Your task to perform on an android device: Open CNN.com Image 0: 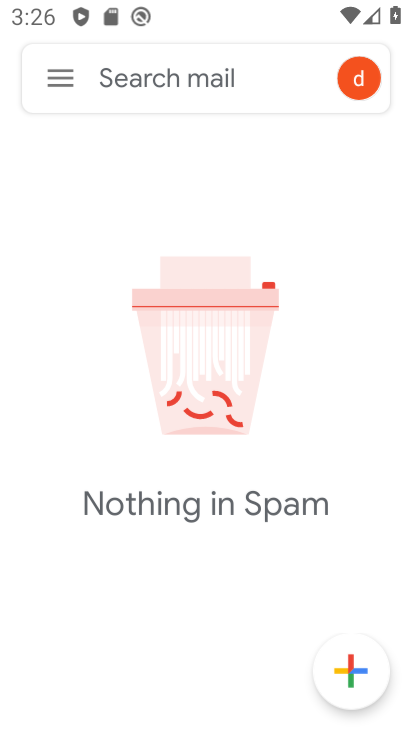
Step 0: drag from (202, 610) to (191, 280)
Your task to perform on an android device: Open CNN.com Image 1: 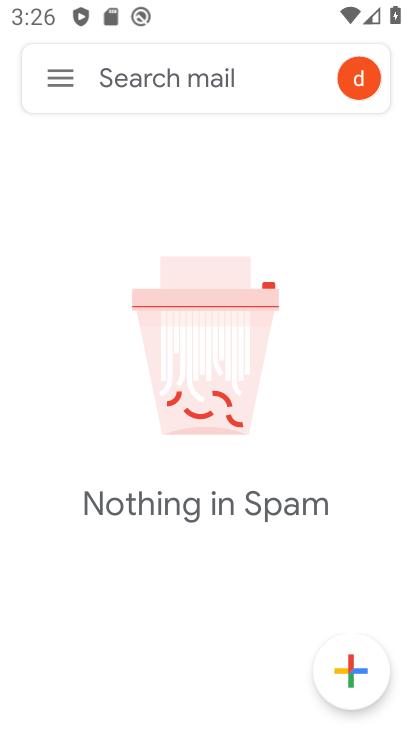
Step 1: press home button
Your task to perform on an android device: Open CNN.com Image 2: 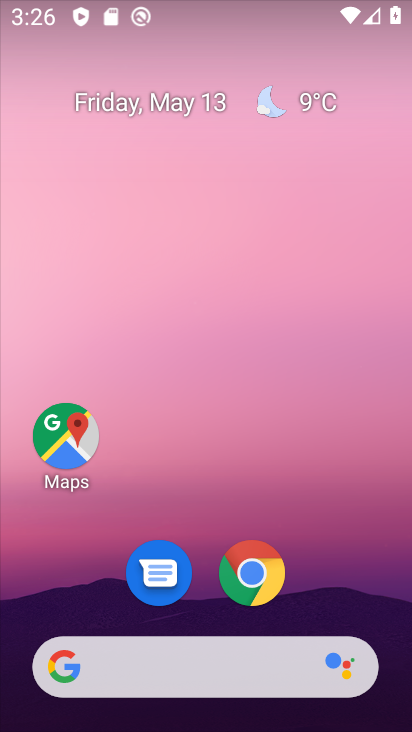
Step 2: drag from (201, 617) to (213, 277)
Your task to perform on an android device: Open CNN.com Image 3: 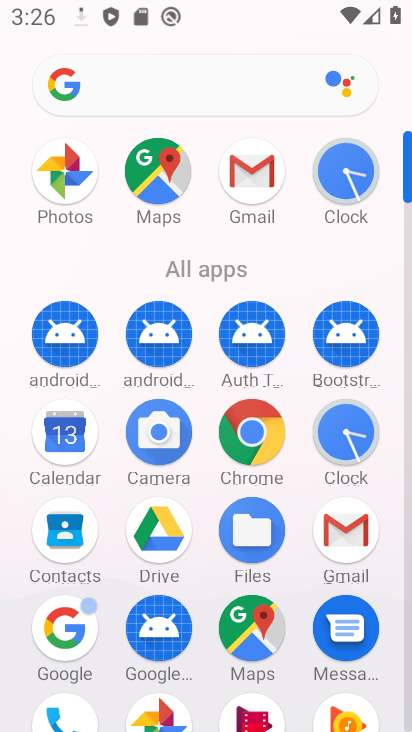
Step 3: click (252, 427)
Your task to perform on an android device: Open CNN.com Image 4: 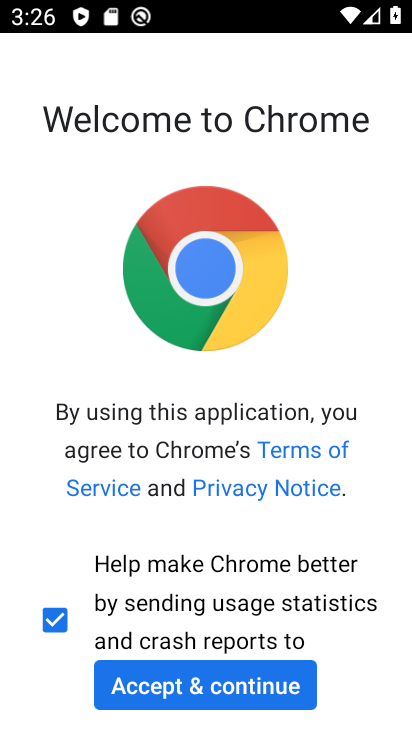
Step 4: click (221, 686)
Your task to perform on an android device: Open CNN.com Image 5: 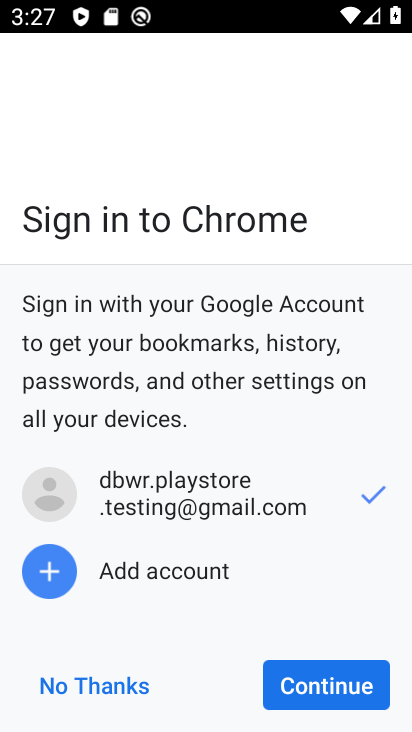
Step 5: click (315, 678)
Your task to perform on an android device: Open CNN.com Image 6: 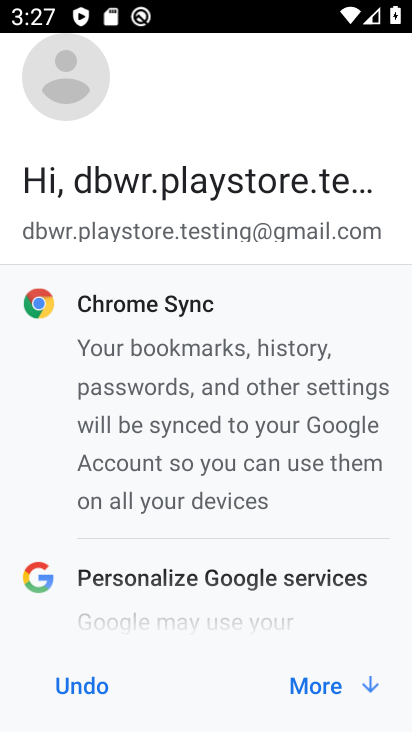
Step 6: click (333, 683)
Your task to perform on an android device: Open CNN.com Image 7: 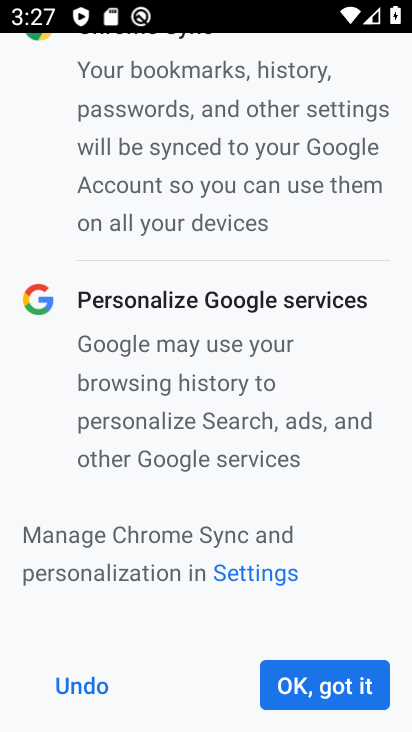
Step 7: click (309, 696)
Your task to perform on an android device: Open CNN.com Image 8: 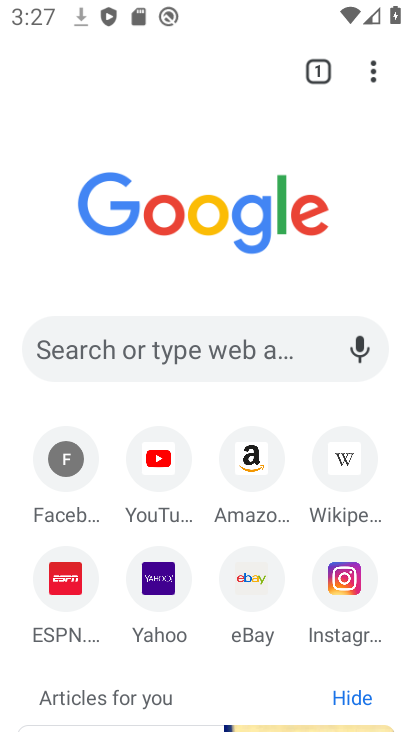
Step 8: click (171, 345)
Your task to perform on an android device: Open CNN.com Image 9: 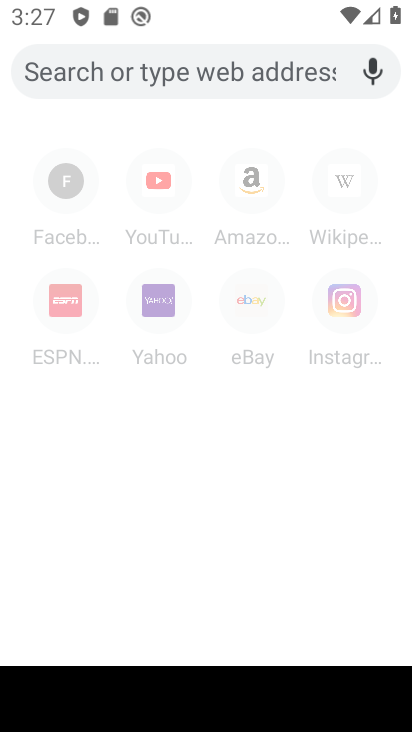
Step 9: type "cnn.com"
Your task to perform on an android device: Open CNN.com Image 10: 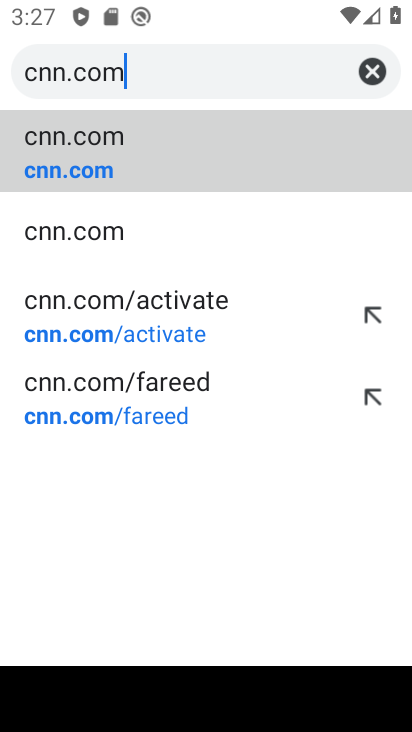
Step 10: click (116, 151)
Your task to perform on an android device: Open CNN.com Image 11: 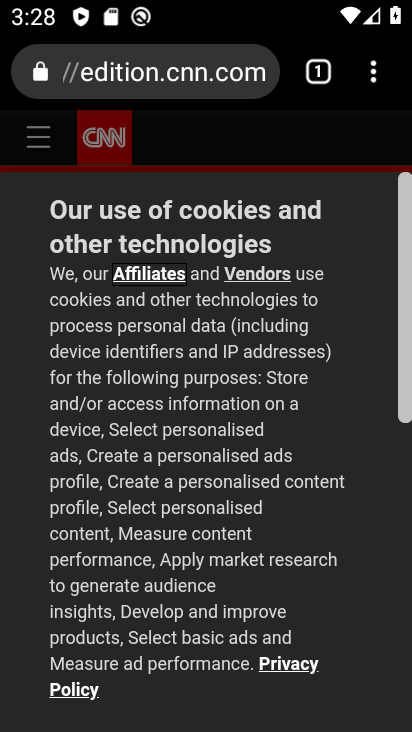
Step 11: drag from (242, 619) to (240, 446)
Your task to perform on an android device: Open CNN.com Image 12: 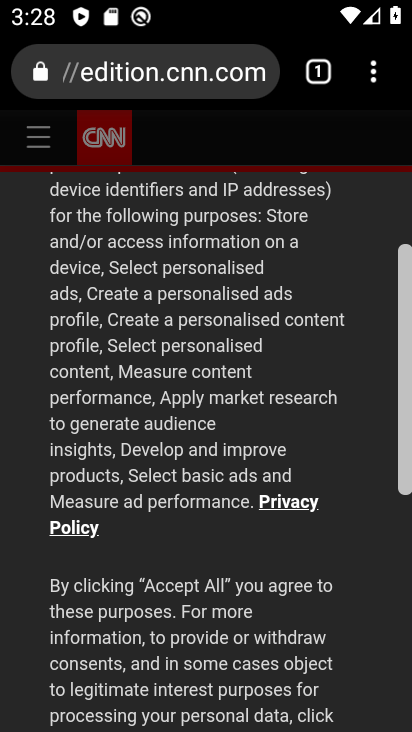
Step 12: drag from (215, 658) to (200, 371)
Your task to perform on an android device: Open CNN.com Image 13: 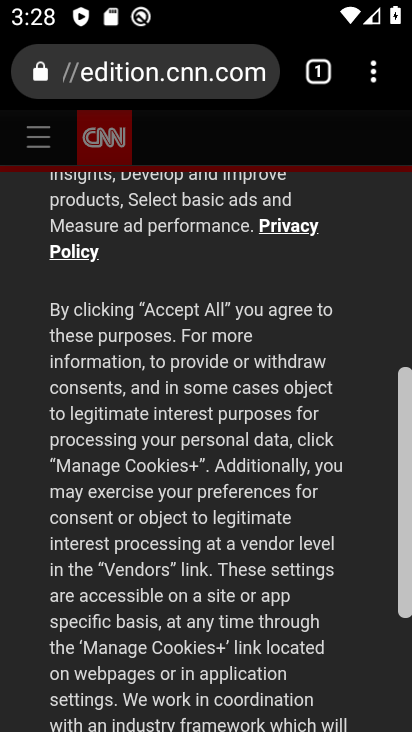
Step 13: drag from (182, 677) to (182, 241)
Your task to perform on an android device: Open CNN.com Image 14: 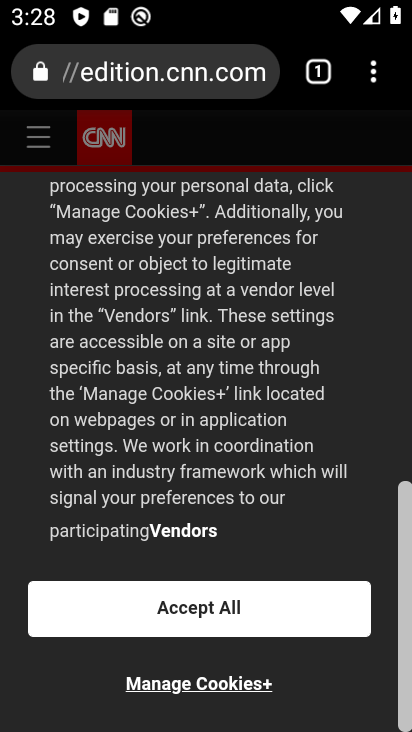
Step 14: click (192, 607)
Your task to perform on an android device: Open CNN.com Image 15: 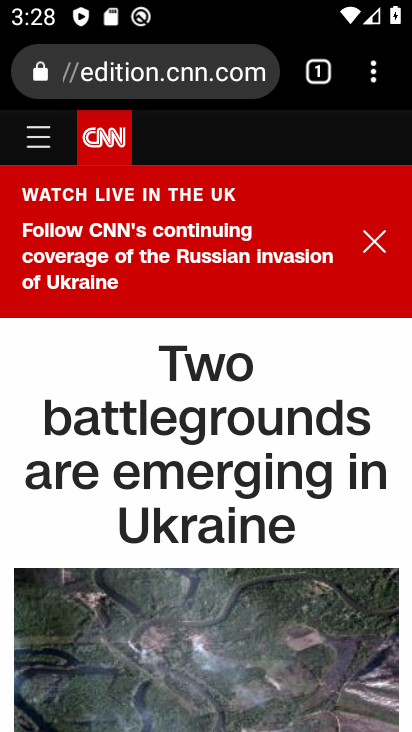
Step 15: task complete